Your task to perform on an android device: open app "Chime – Mobile Banking" (install if not already installed) and go to login screen Image 0: 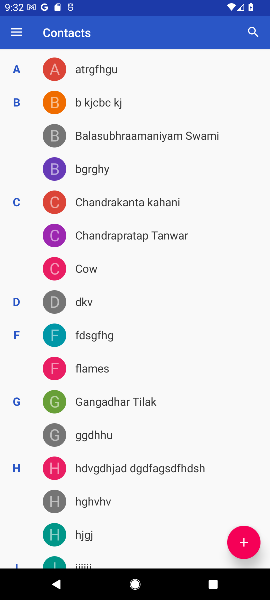
Step 0: press home button
Your task to perform on an android device: open app "Chime – Mobile Banking" (install if not already installed) and go to login screen Image 1: 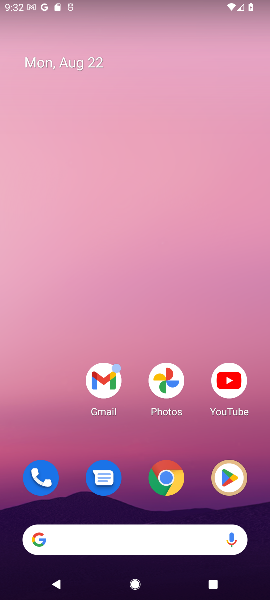
Step 1: click (224, 489)
Your task to perform on an android device: open app "Chime – Mobile Banking" (install if not already installed) and go to login screen Image 2: 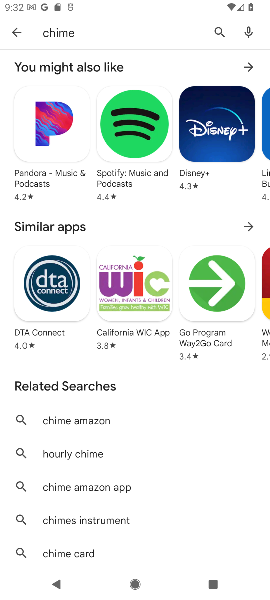
Step 2: click (211, 37)
Your task to perform on an android device: open app "Chime – Mobile Banking" (install if not already installed) and go to login screen Image 3: 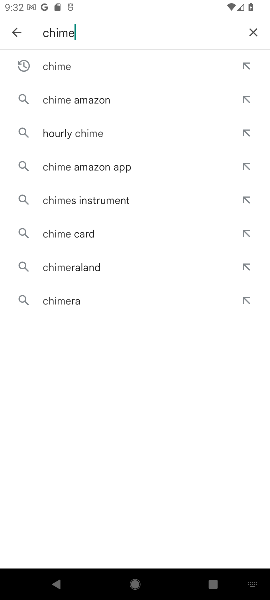
Step 3: click (136, 61)
Your task to perform on an android device: open app "Chime – Mobile Banking" (install if not already installed) and go to login screen Image 4: 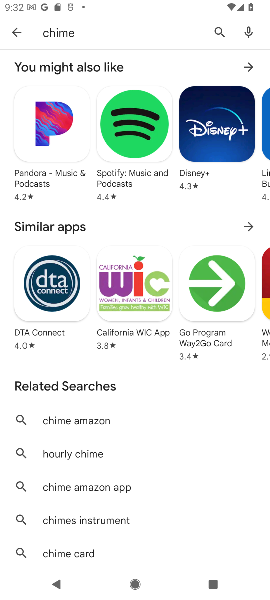
Step 4: task complete